Your task to perform on an android device: Go to sound settings Image 0: 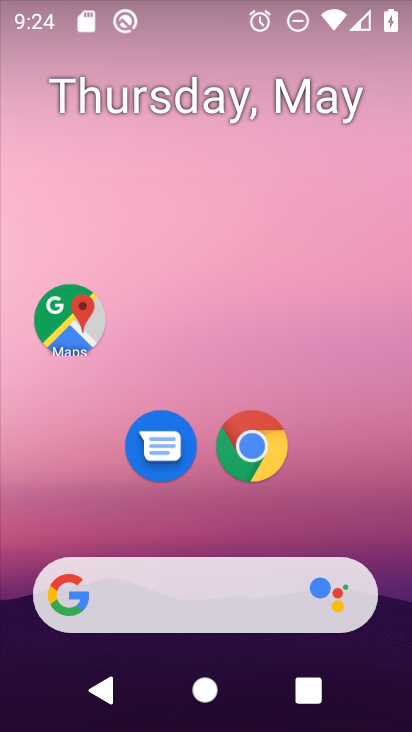
Step 0: drag from (364, 477) to (331, 134)
Your task to perform on an android device: Go to sound settings Image 1: 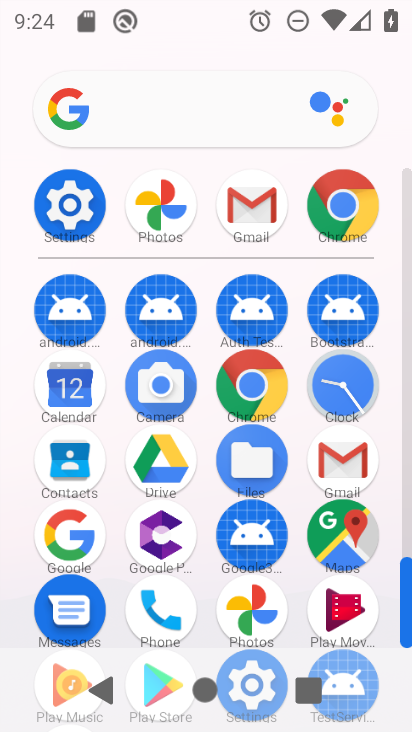
Step 1: click (65, 195)
Your task to perform on an android device: Go to sound settings Image 2: 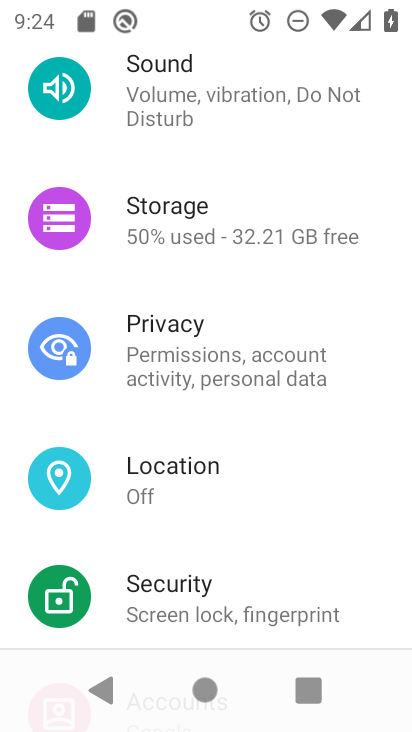
Step 2: drag from (264, 187) to (267, 558)
Your task to perform on an android device: Go to sound settings Image 3: 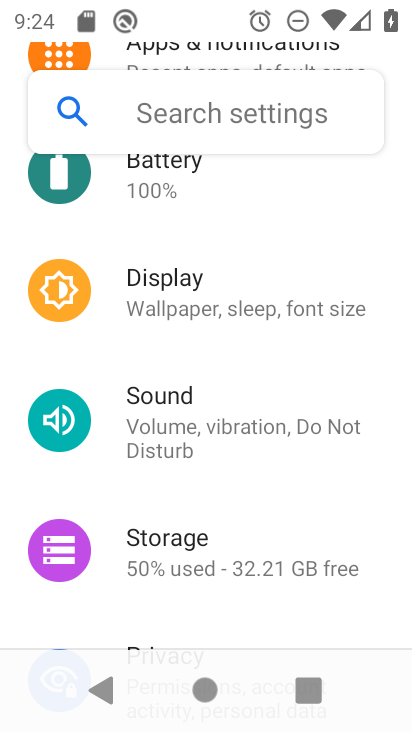
Step 3: click (219, 409)
Your task to perform on an android device: Go to sound settings Image 4: 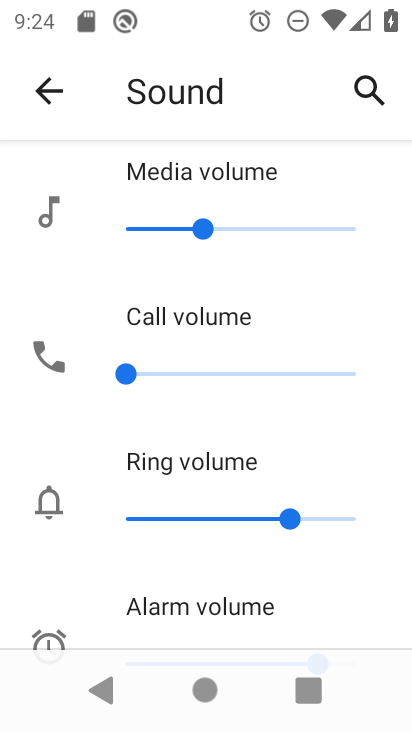
Step 4: task complete